Your task to perform on an android device: Open privacy settings Image 0: 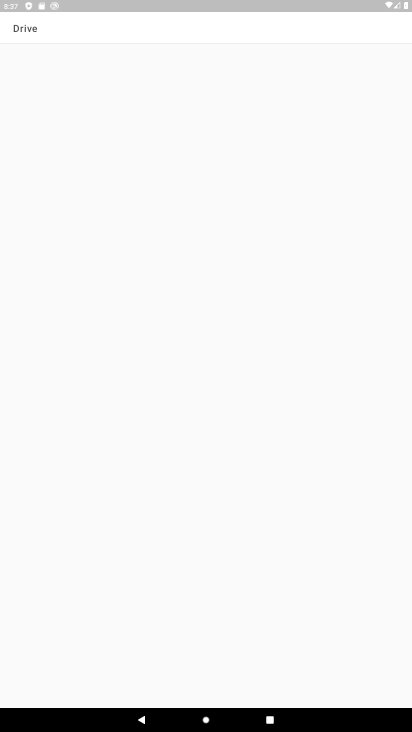
Step 0: press home button
Your task to perform on an android device: Open privacy settings Image 1: 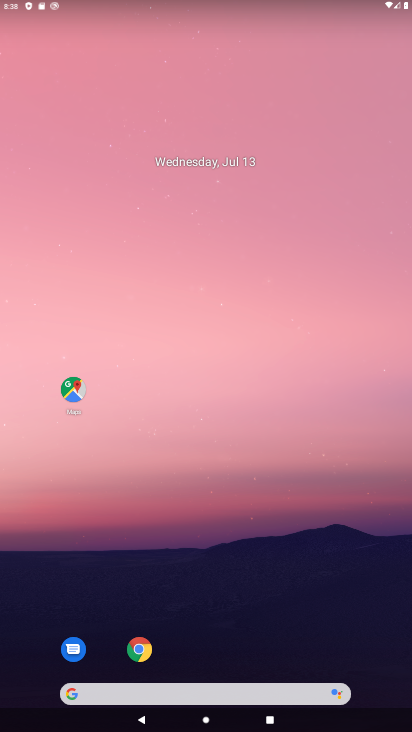
Step 1: drag from (282, 680) to (322, 45)
Your task to perform on an android device: Open privacy settings Image 2: 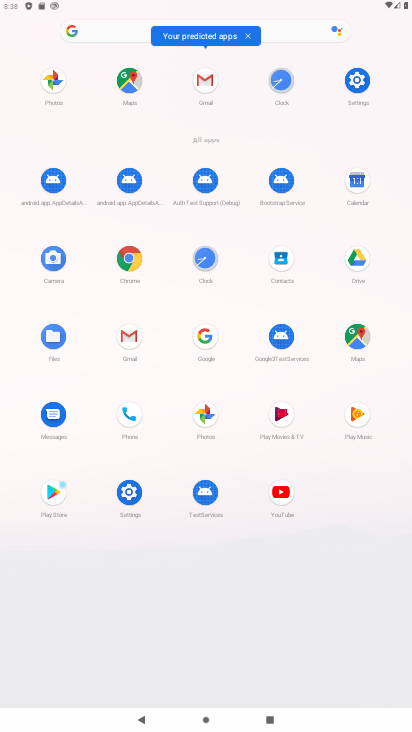
Step 2: click (353, 69)
Your task to perform on an android device: Open privacy settings Image 3: 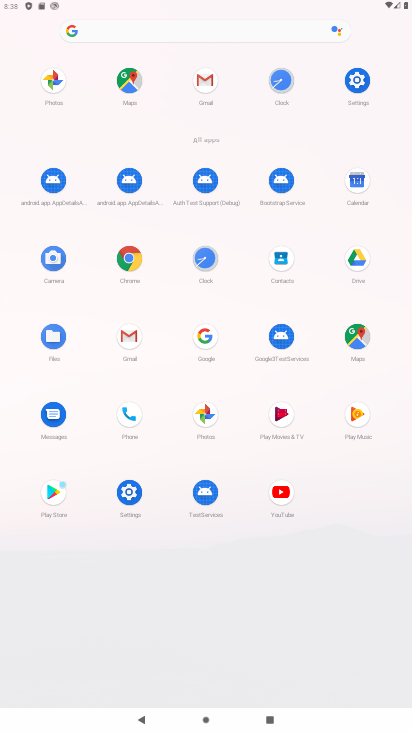
Step 3: click (137, 487)
Your task to perform on an android device: Open privacy settings Image 4: 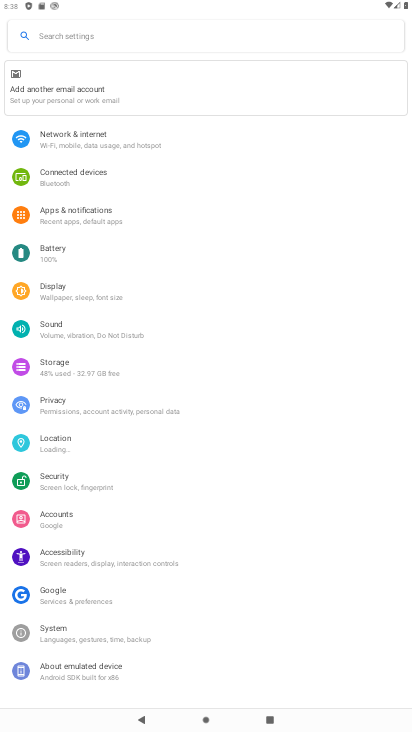
Step 4: click (70, 404)
Your task to perform on an android device: Open privacy settings Image 5: 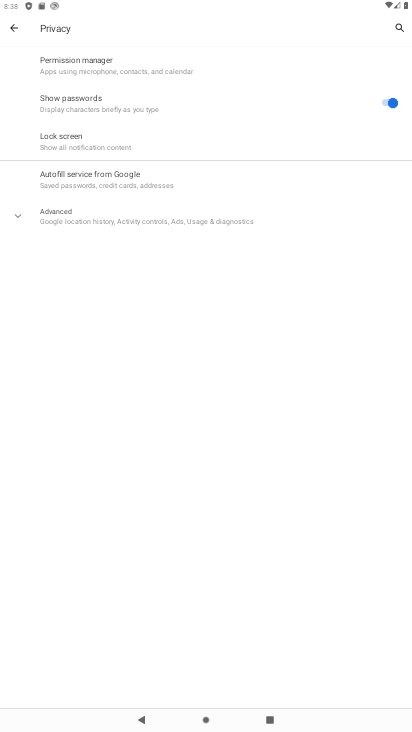
Step 5: task complete